Your task to perform on an android device: check android version Image 0: 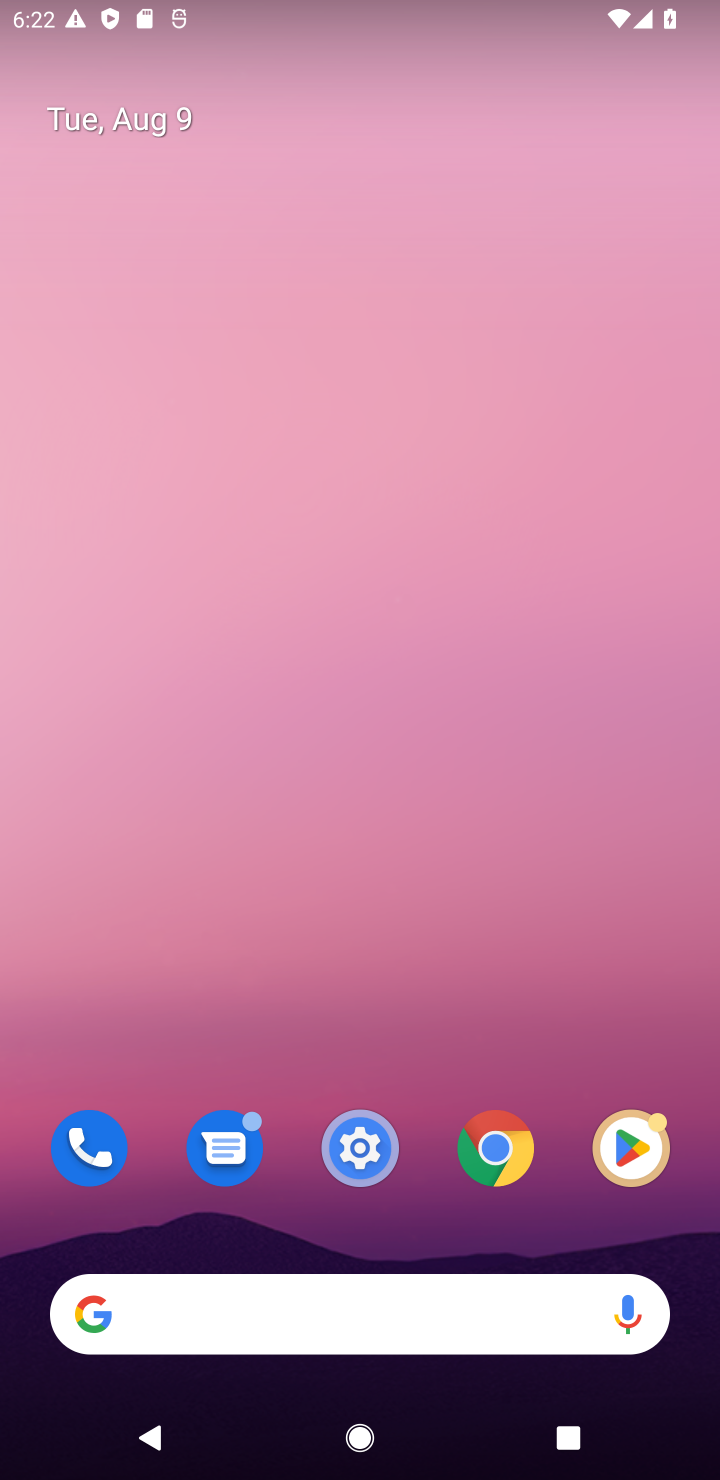
Step 0: drag from (499, 1208) to (422, 344)
Your task to perform on an android device: check android version Image 1: 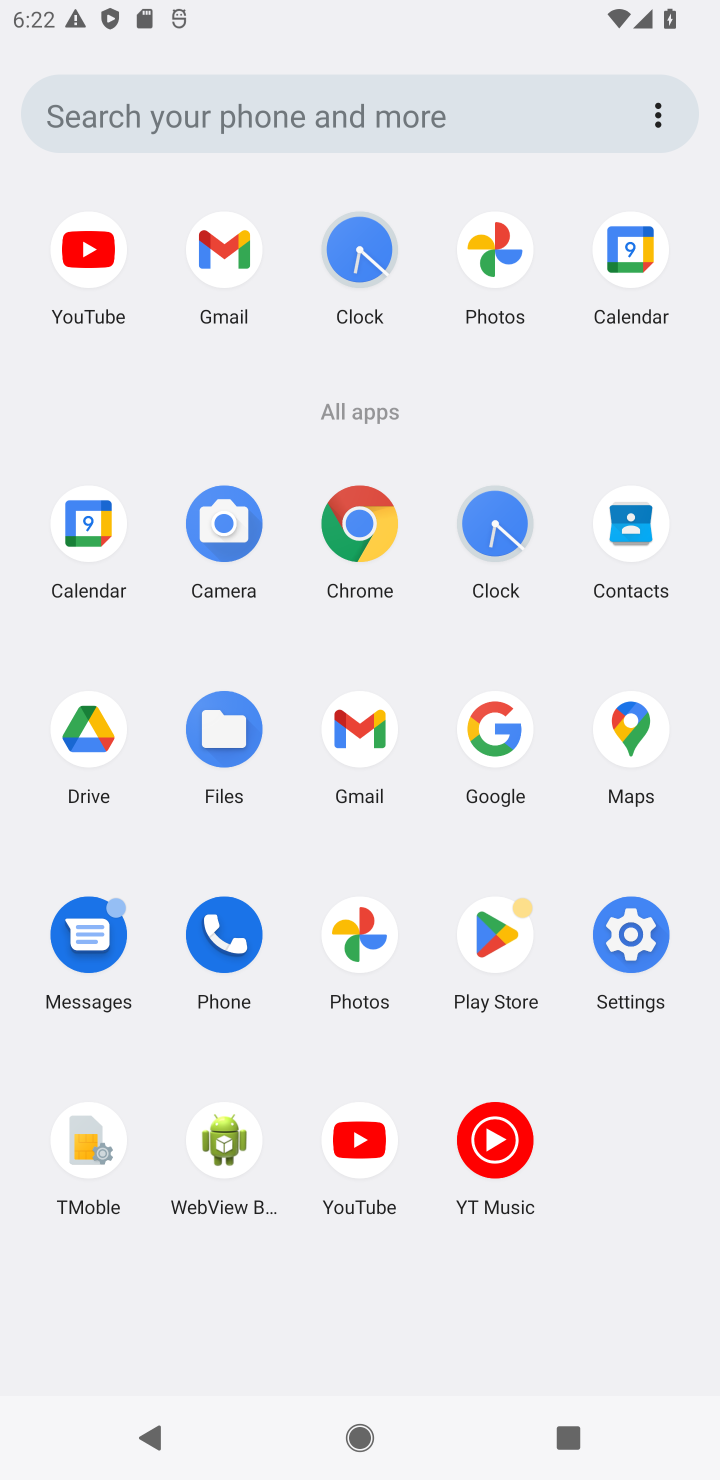
Step 1: click (638, 960)
Your task to perform on an android device: check android version Image 2: 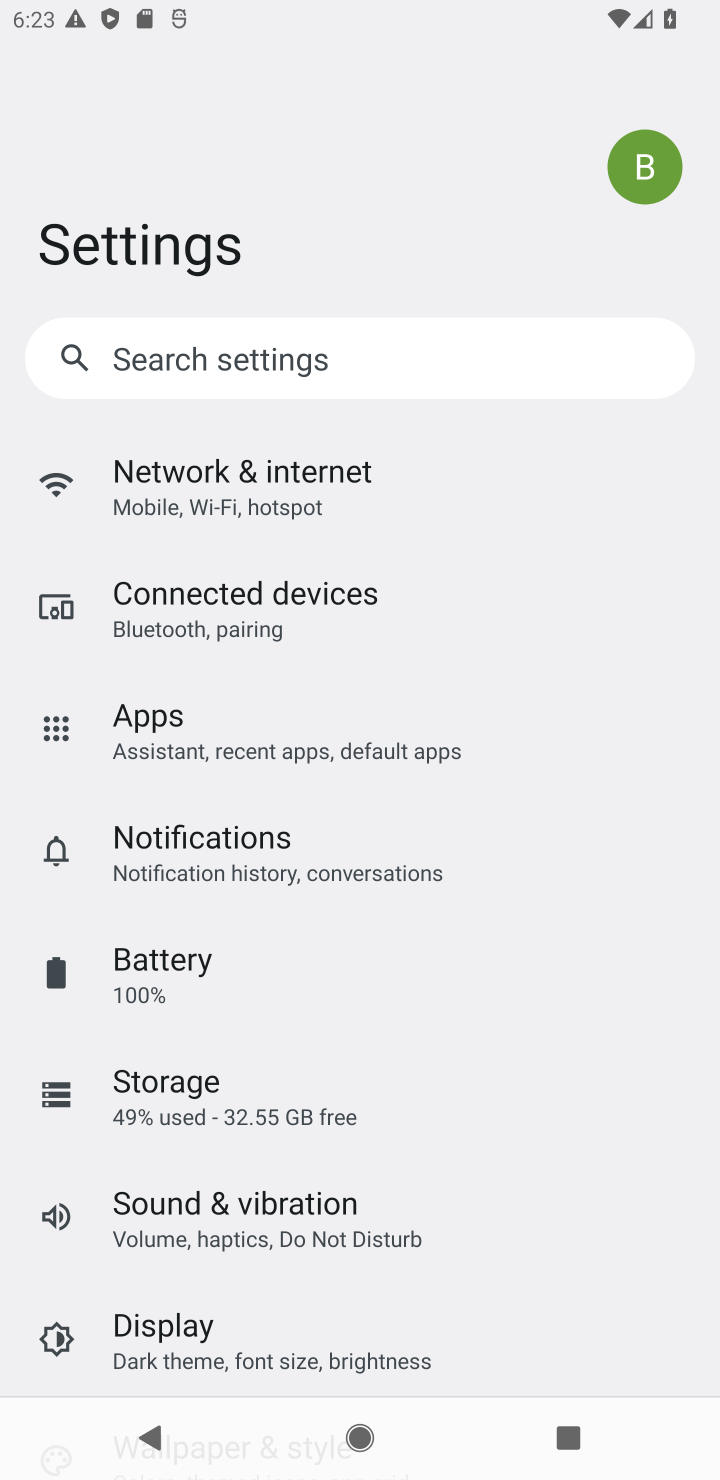
Step 2: drag from (239, 1199) to (246, 938)
Your task to perform on an android device: check android version Image 3: 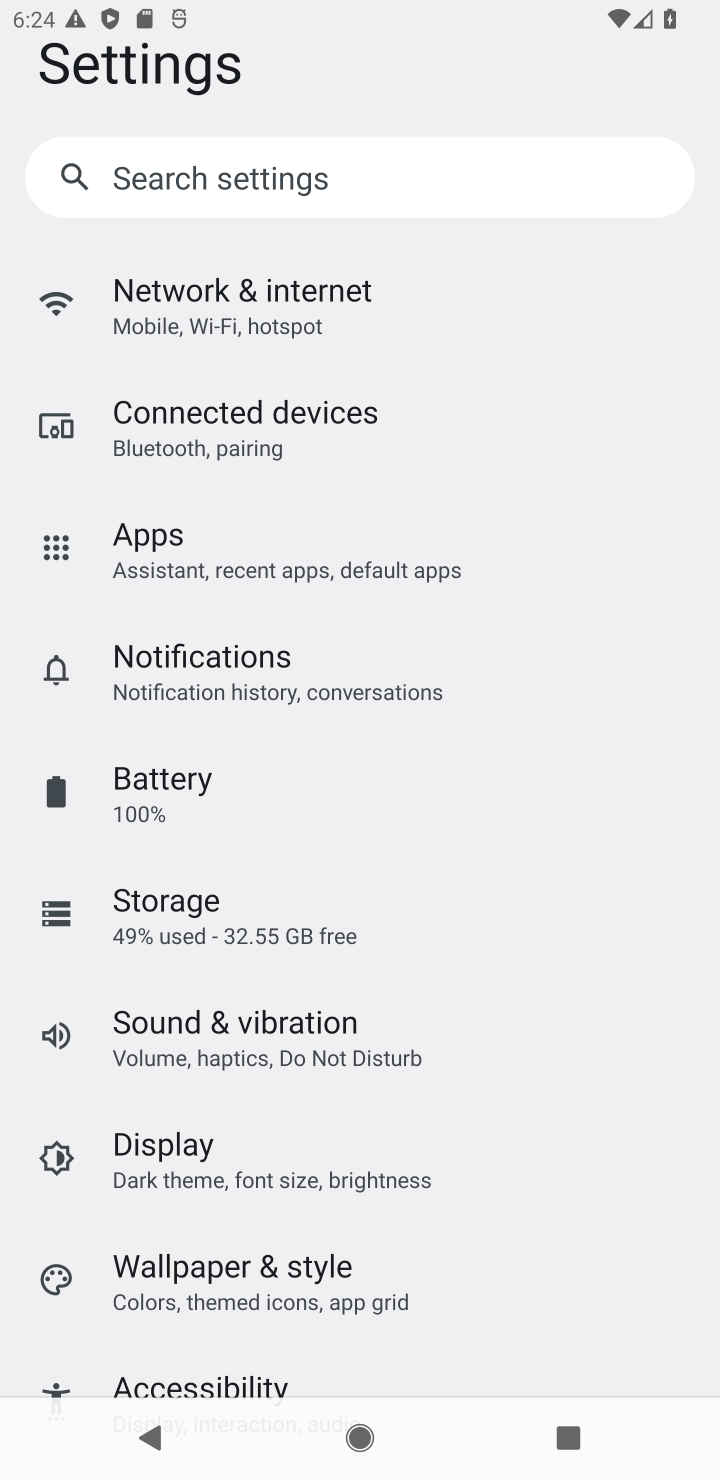
Step 3: drag from (333, 1304) to (328, 347)
Your task to perform on an android device: check android version Image 4: 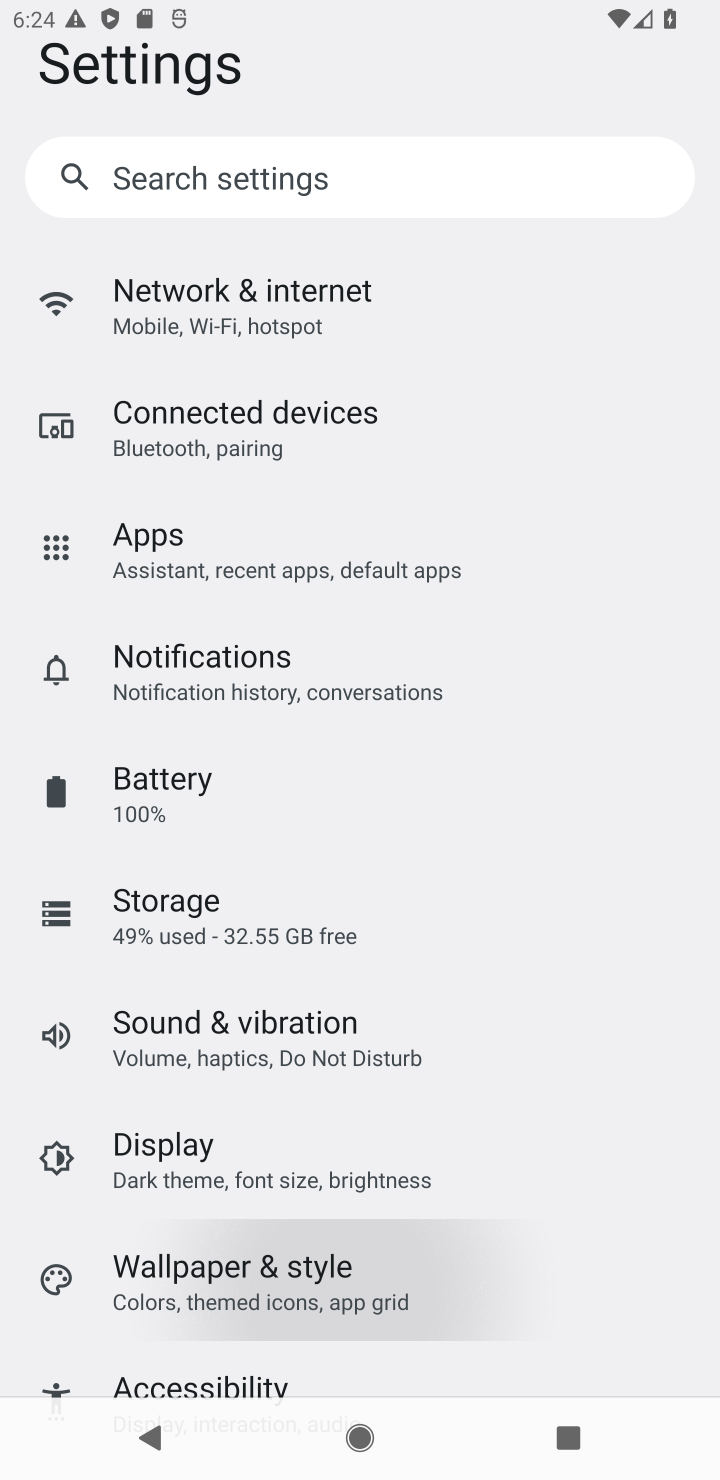
Step 4: drag from (328, 1066) to (325, 522)
Your task to perform on an android device: check android version Image 5: 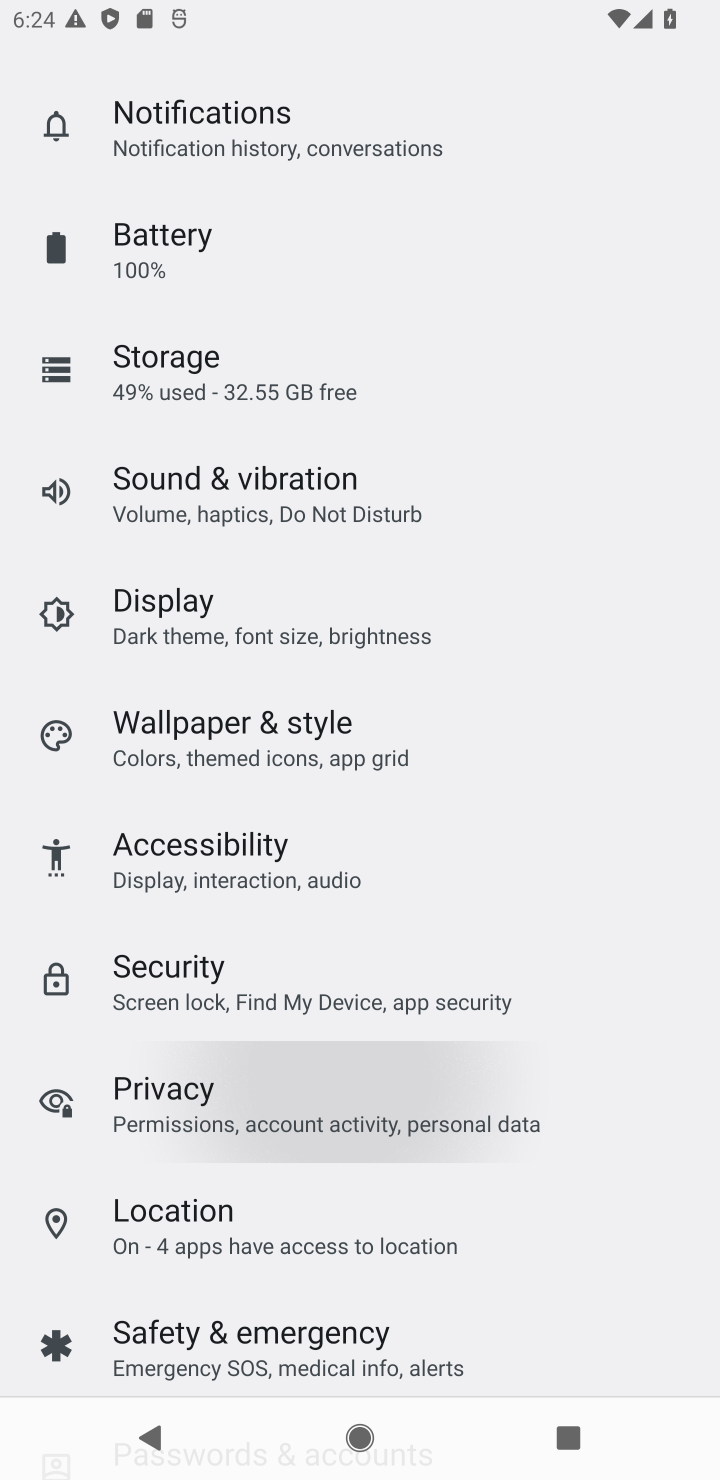
Step 5: drag from (317, 1078) to (310, 449)
Your task to perform on an android device: check android version Image 6: 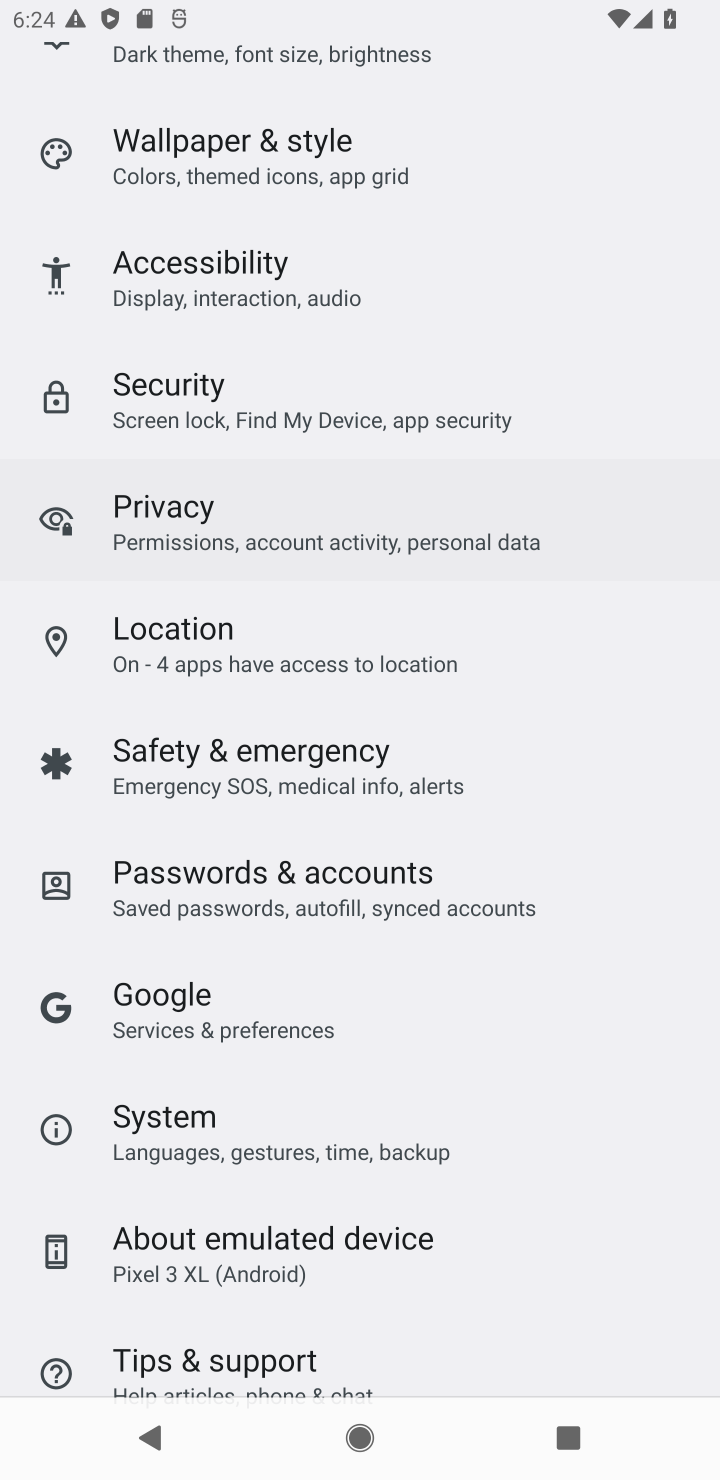
Step 6: drag from (273, 1201) to (290, 196)
Your task to perform on an android device: check android version Image 7: 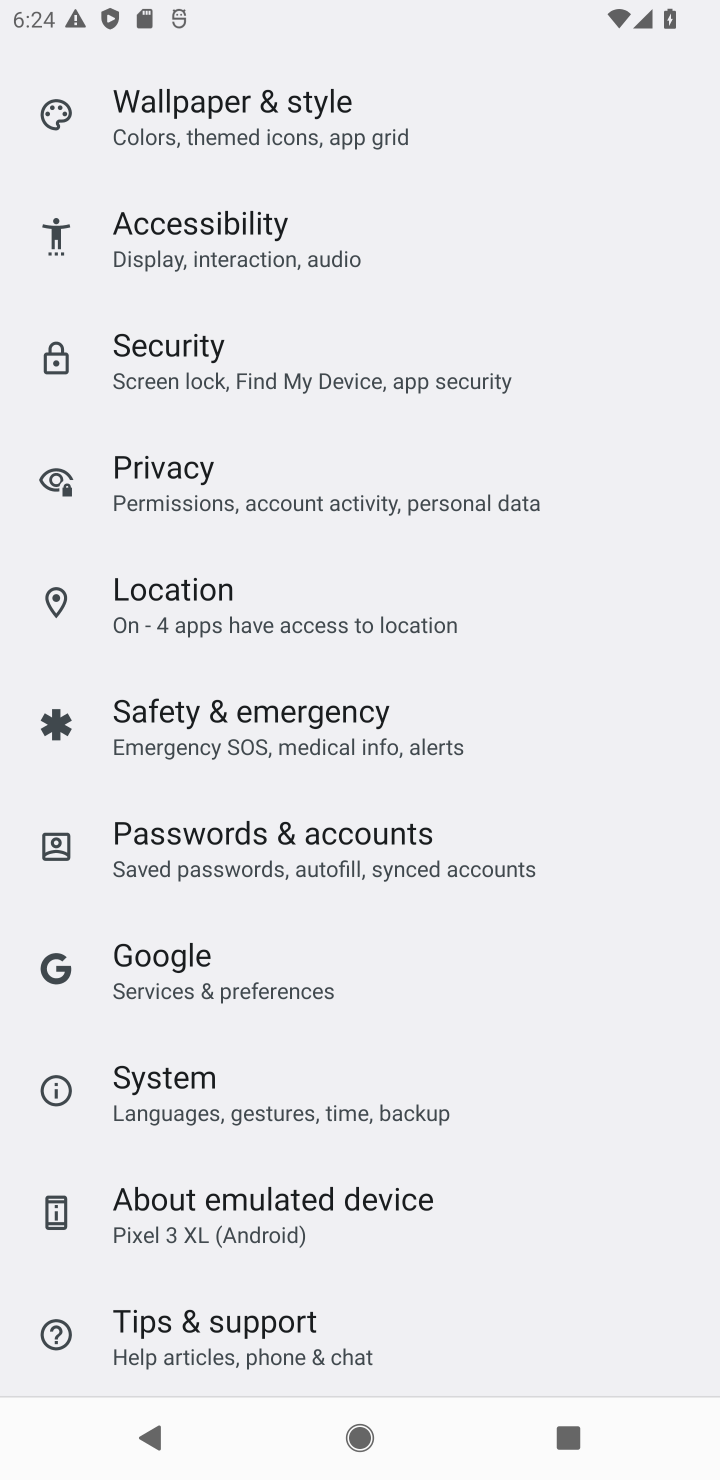
Step 7: drag from (244, 1105) to (290, 194)
Your task to perform on an android device: check android version Image 8: 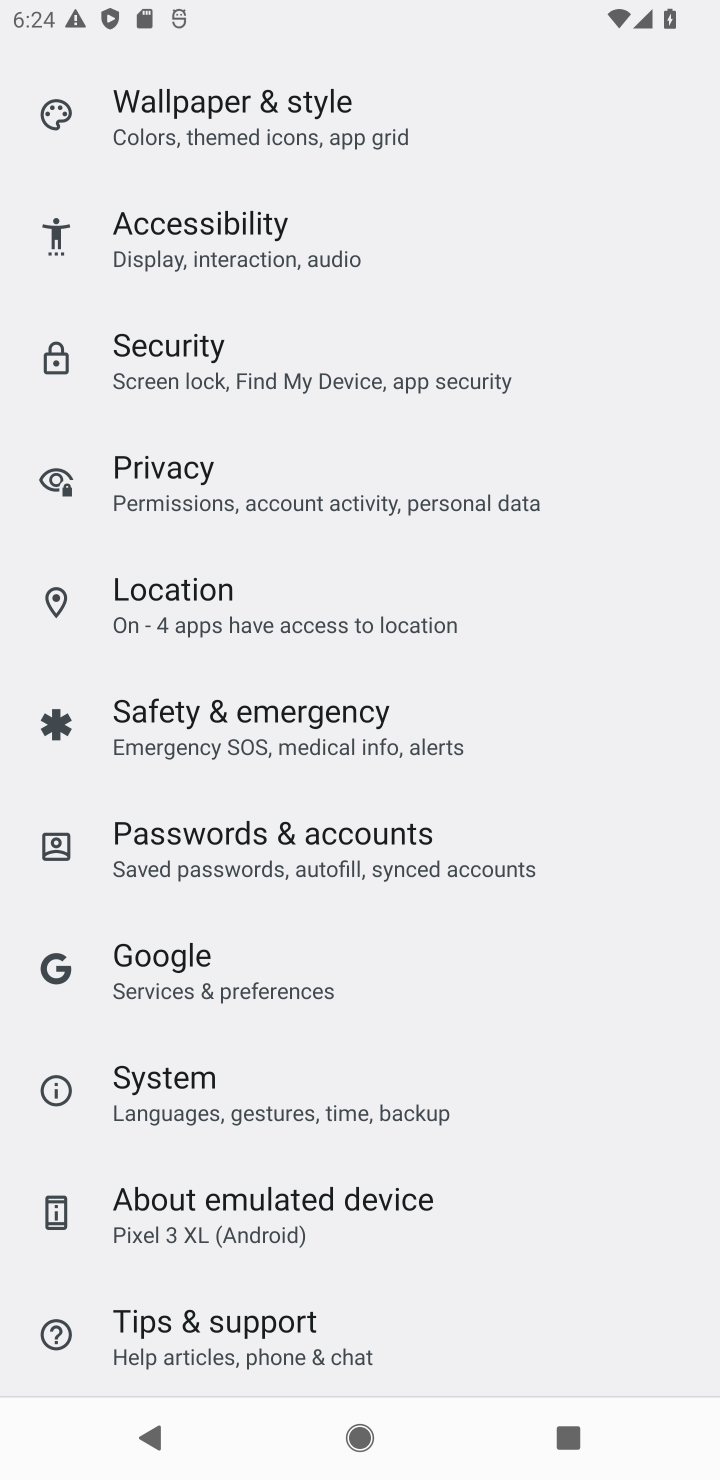
Step 8: click (199, 1177)
Your task to perform on an android device: check android version Image 9: 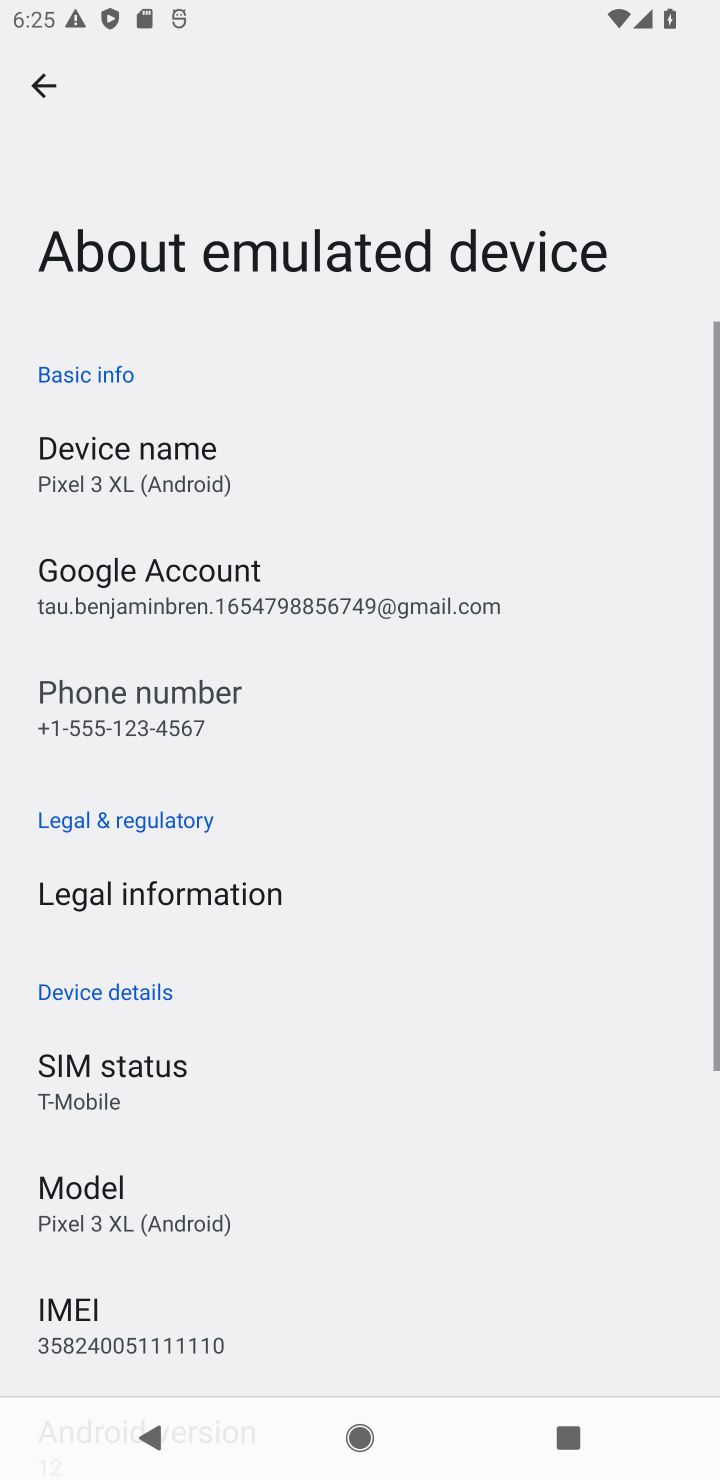
Step 9: drag from (228, 1028) to (280, 129)
Your task to perform on an android device: check android version Image 10: 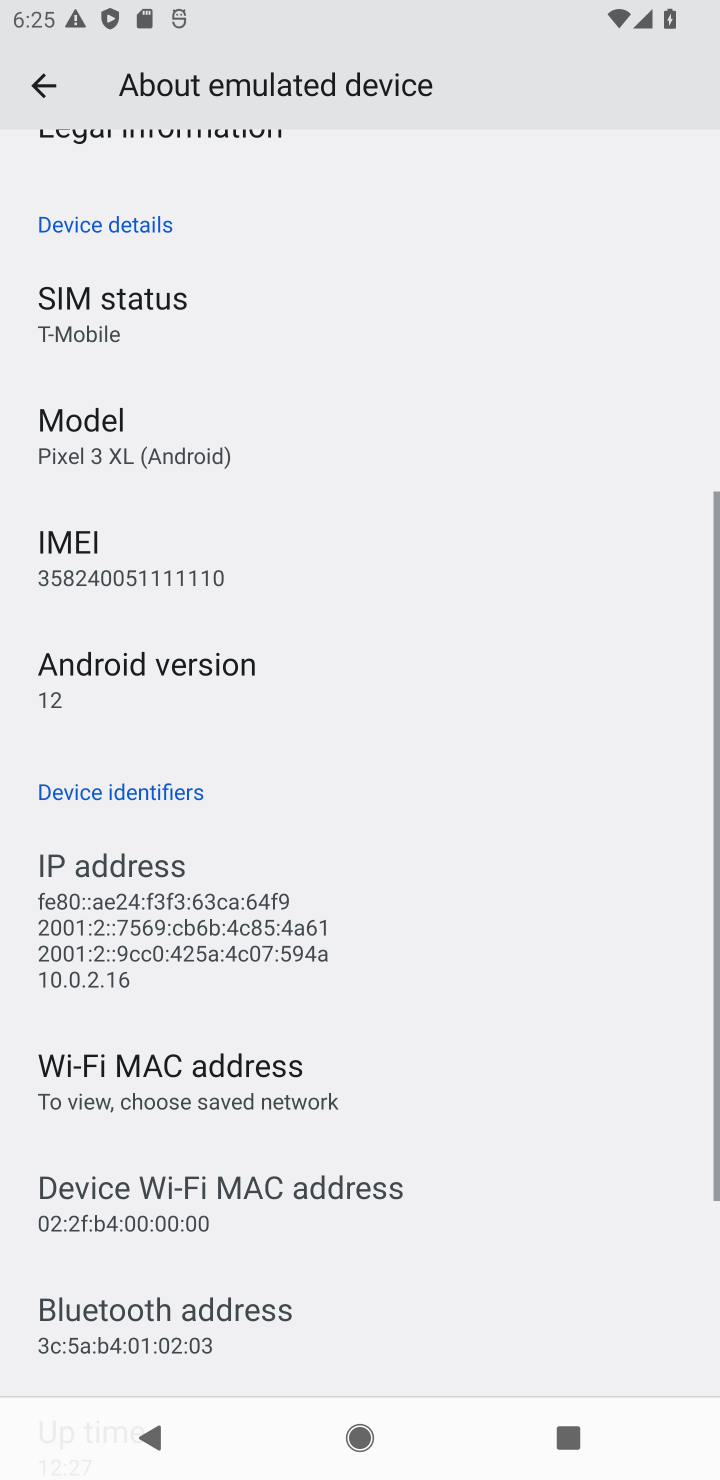
Step 10: click (142, 718)
Your task to perform on an android device: check android version Image 11: 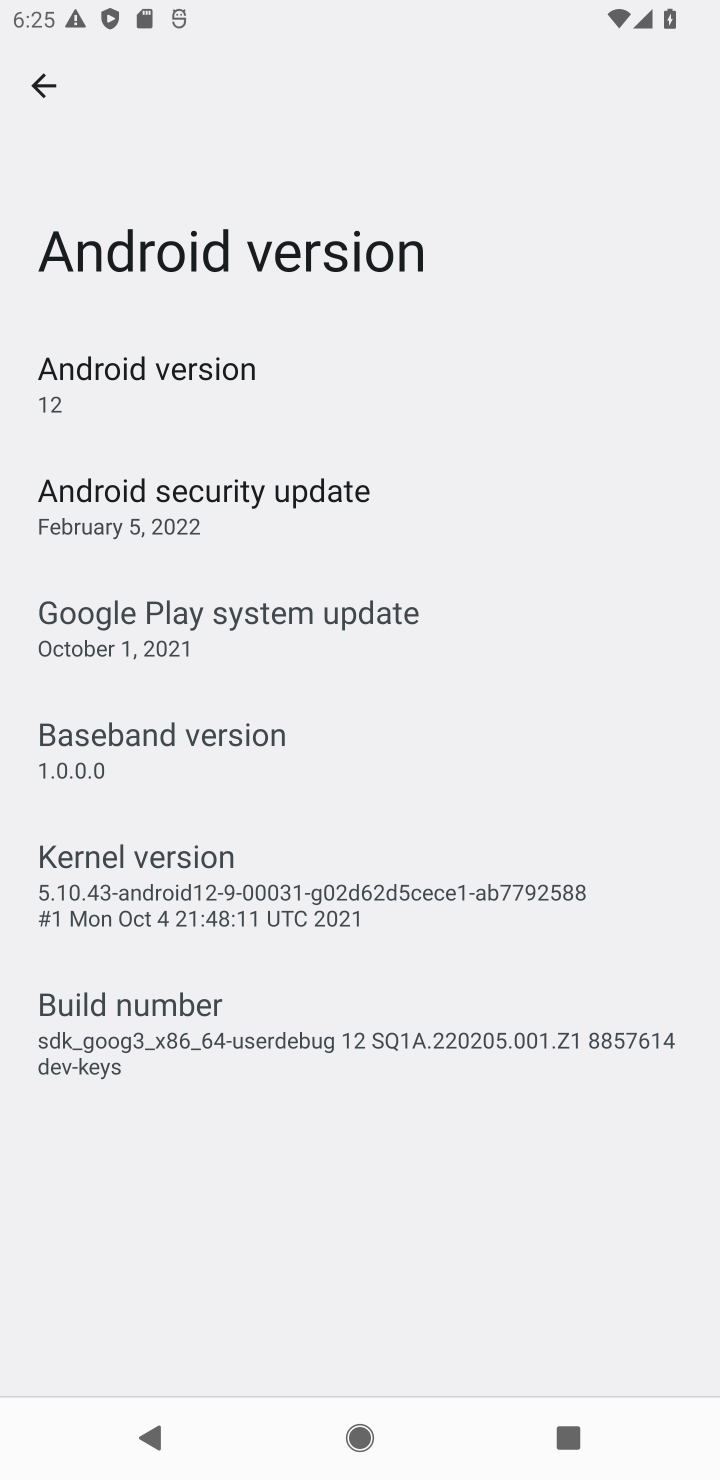
Step 11: task complete